Your task to perform on an android device: allow cookies in the chrome app Image 0: 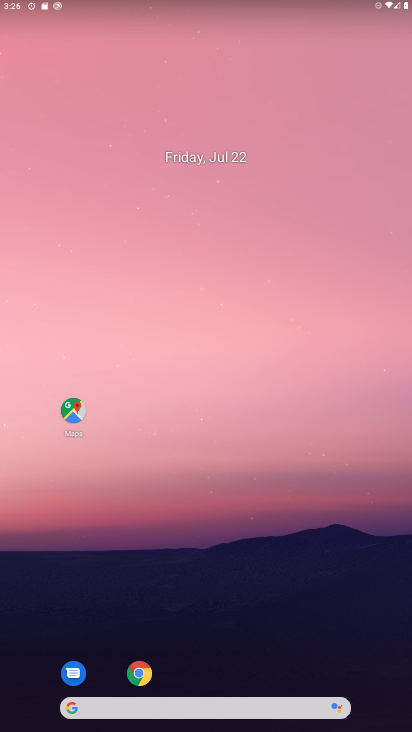
Step 0: drag from (215, 669) to (257, 114)
Your task to perform on an android device: allow cookies in the chrome app Image 1: 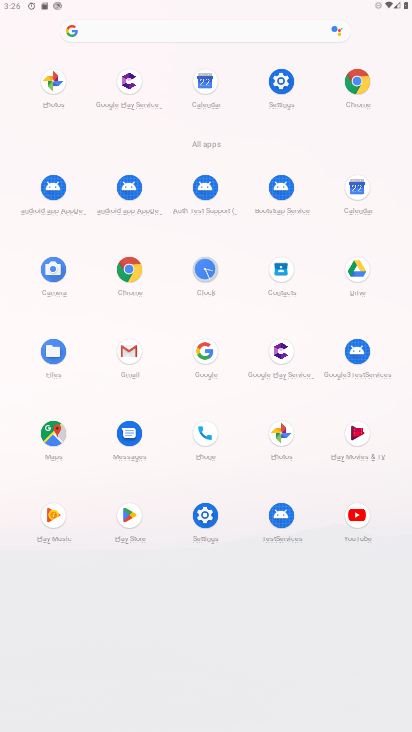
Step 1: click (125, 270)
Your task to perform on an android device: allow cookies in the chrome app Image 2: 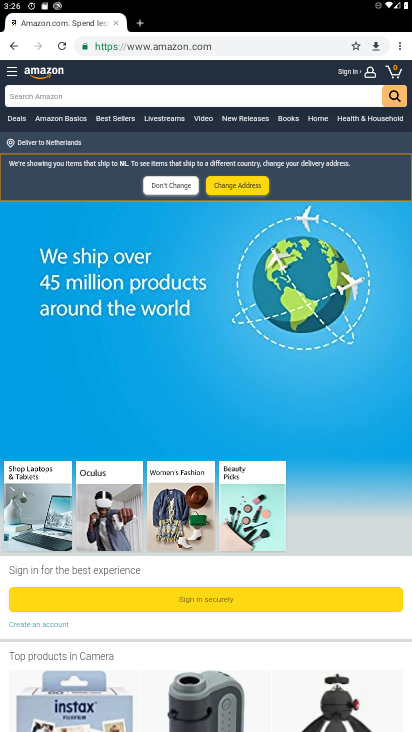
Step 2: drag from (188, 653) to (270, 265)
Your task to perform on an android device: allow cookies in the chrome app Image 3: 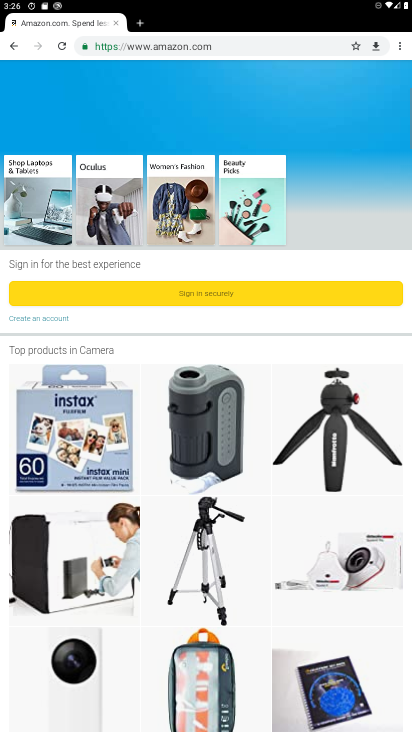
Step 3: drag from (287, 182) to (290, 683)
Your task to perform on an android device: allow cookies in the chrome app Image 4: 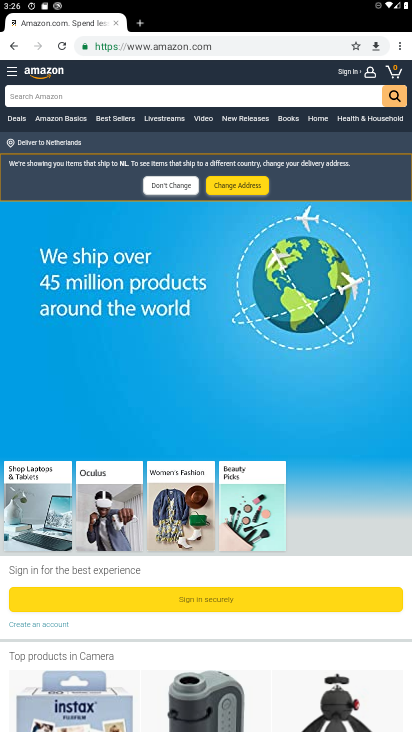
Step 4: drag from (400, 40) to (320, 302)
Your task to perform on an android device: allow cookies in the chrome app Image 5: 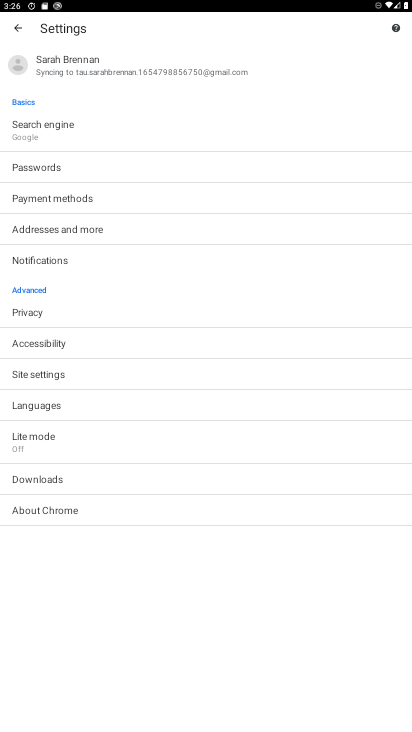
Step 5: click (73, 379)
Your task to perform on an android device: allow cookies in the chrome app Image 6: 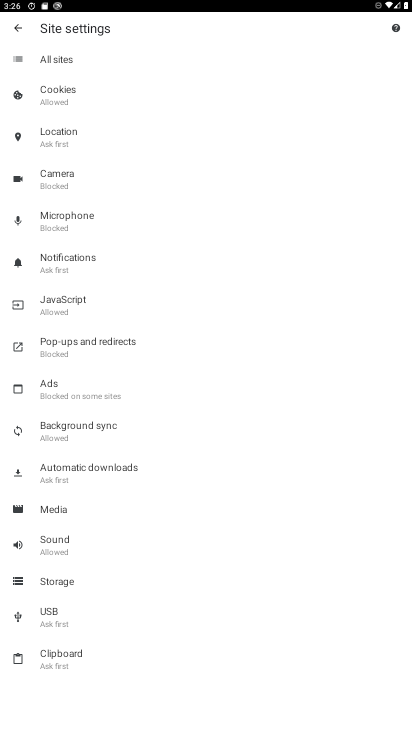
Step 6: click (74, 93)
Your task to perform on an android device: allow cookies in the chrome app Image 7: 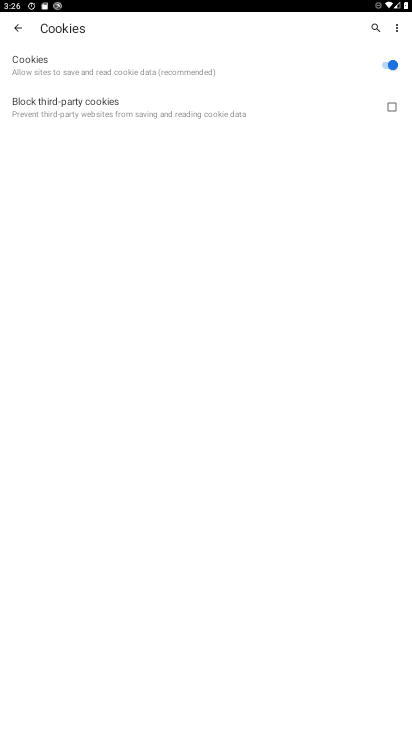
Step 7: task complete